Your task to perform on an android device: Search for "logitech g pro" on walmart.com, select the first entry, and add it to the cart. Image 0: 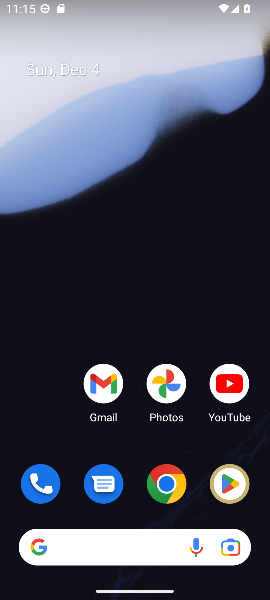
Step 0: click (166, 495)
Your task to perform on an android device: Search for "logitech g pro" on walmart.com, select the first entry, and add it to the cart. Image 1: 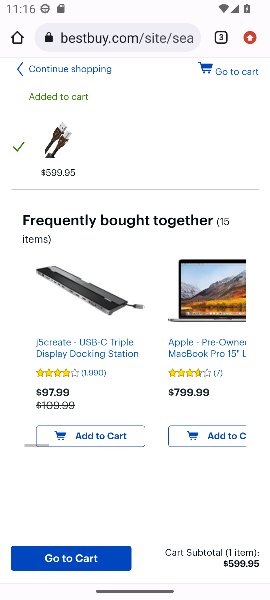
Step 1: click (111, 29)
Your task to perform on an android device: Search for "logitech g pro" on walmart.com, select the first entry, and add it to the cart. Image 2: 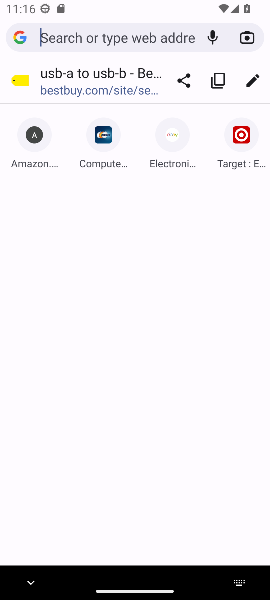
Step 2: type "walmart.com"
Your task to perform on an android device: Search for "logitech g pro" on walmart.com, select the first entry, and add it to the cart. Image 3: 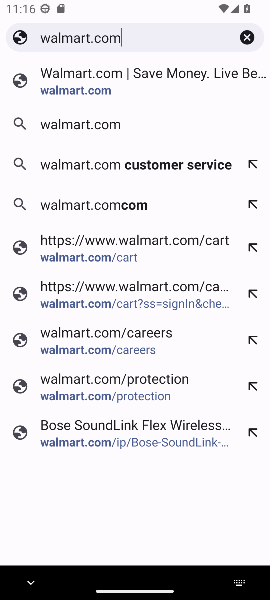
Step 3: click (66, 91)
Your task to perform on an android device: Search for "logitech g pro" on walmart.com, select the first entry, and add it to the cart. Image 4: 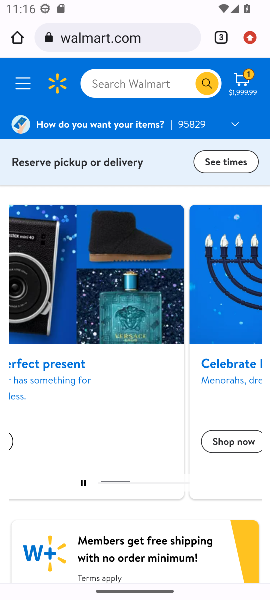
Step 4: click (122, 75)
Your task to perform on an android device: Search for "logitech g pro" on walmart.com, select the first entry, and add it to the cart. Image 5: 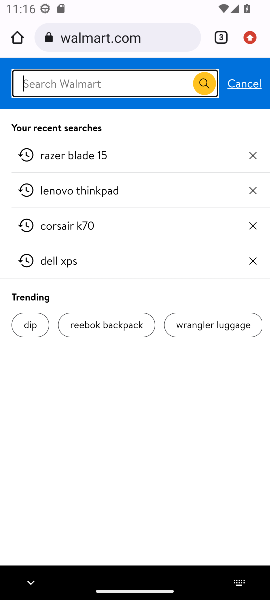
Step 5: type "logitech g pro"
Your task to perform on an android device: Search for "logitech g pro" on walmart.com, select the first entry, and add it to the cart. Image 6: 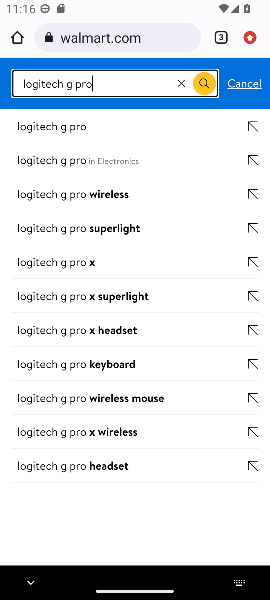
Step 6: click (57, 126)
Your task to perform on an android device: Search for "logitech g pro" on walmart.com, select the first entry, and add it to the cart. Image 7: 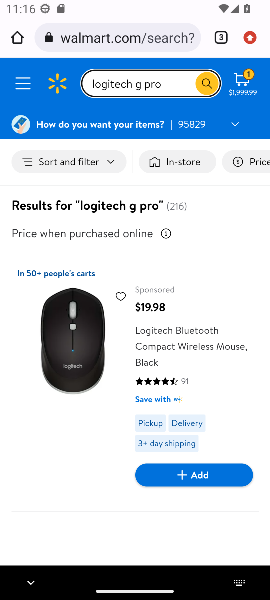
Step 7: task complete